Your task to perform on an android device: visit the assistant section in the google photos Image 0: 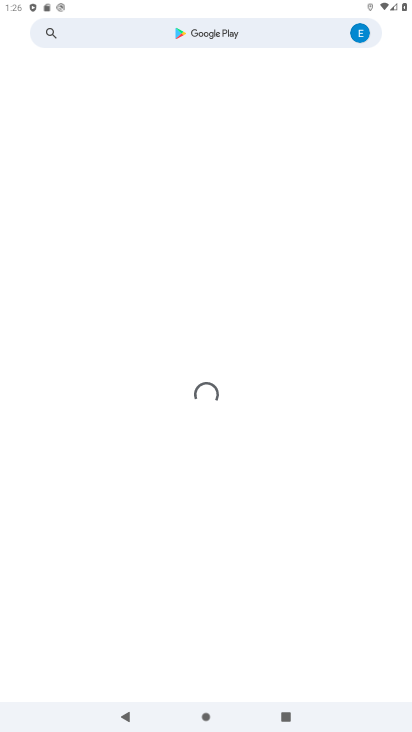
Step 0: press home button
Your task to perform on an android device: visit the assistant section in the google photos Image 1: 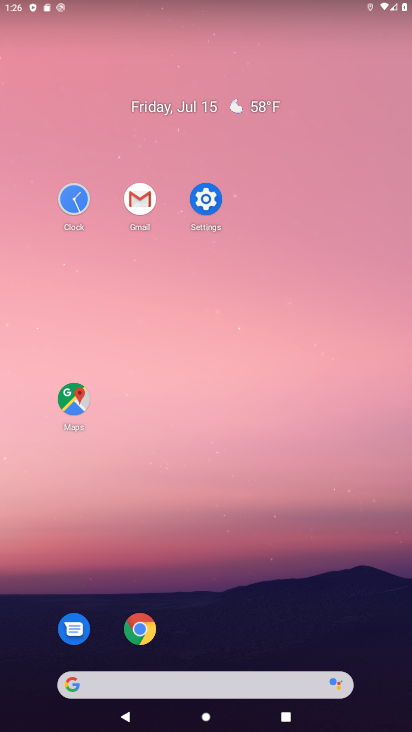
Step 1: drag from (228, 537) to (266, 293)
Your task to perform on an android device: visit the assistant section in the google photos Image 2: 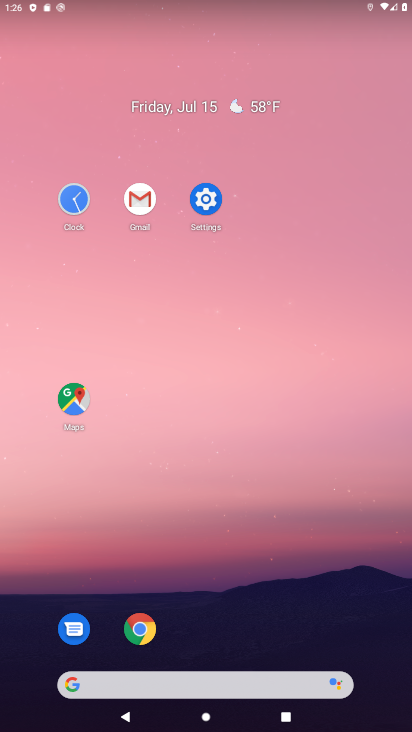
Step 2: drag from (224, 623) to (254, 221)
Your task to perform on an android device: visit the assistant section in the google photos Image 3: 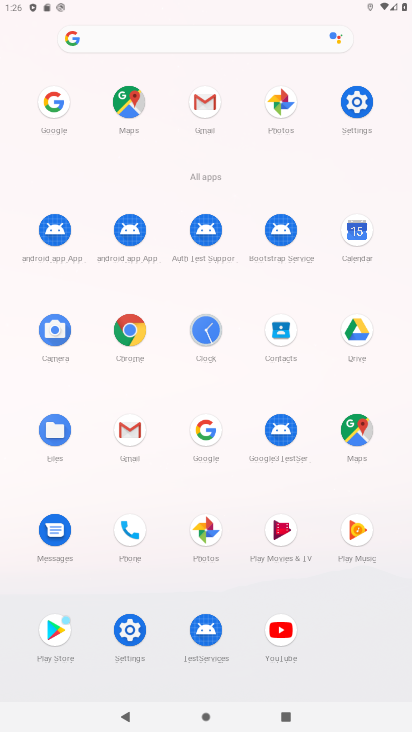
Step 3: drag from (284, 110) to (98, 291)
Your task to perform on an android device: visit the assistant section in the google photos Image 4: 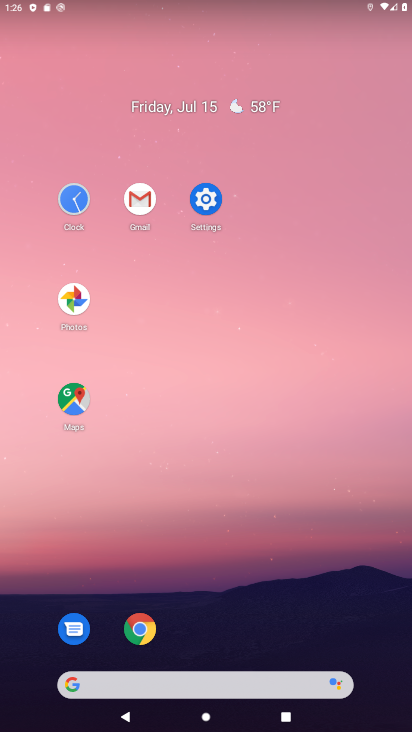
Step 4: click (81, 305)
Your task to perform on an android device: visit the assistant section in the google photos Image 5: 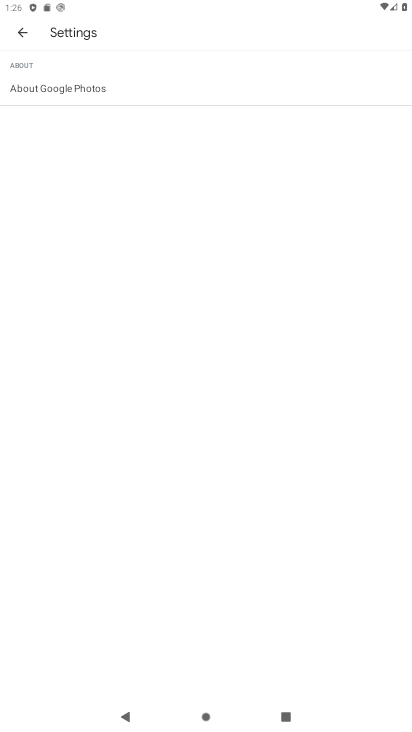
Step 5: click (17, 31)
Your task to perform on an android device: visit the assistant section in the google photos Image 6: 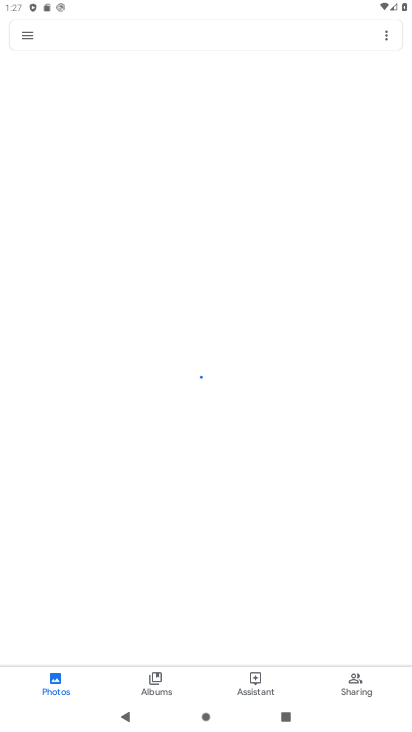
Step 6: click (261, 694)
Your task to perform on an android device: visit the assistant section in the google photos Image 7: 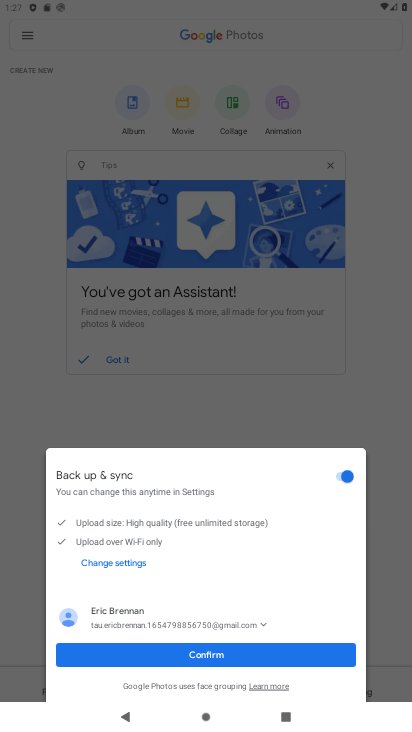
Step 7: click (249, 659)
Your task to perform on an android device: visit the assistant section in the google photos Image 8: 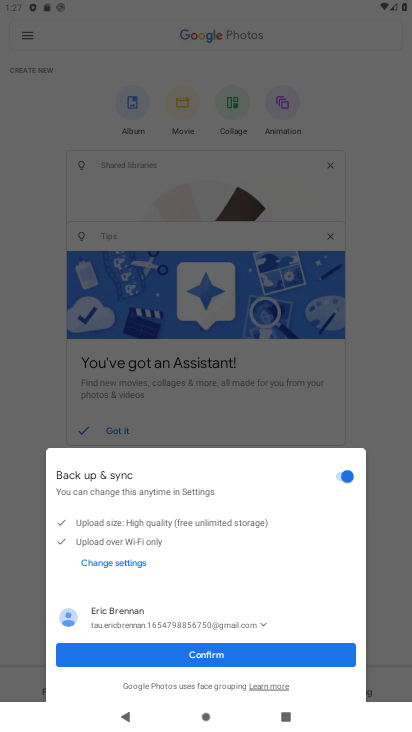
Step 8: click (249, 659)
Your task to perform on an android device: visit the assistant section in the google photos Image 9: 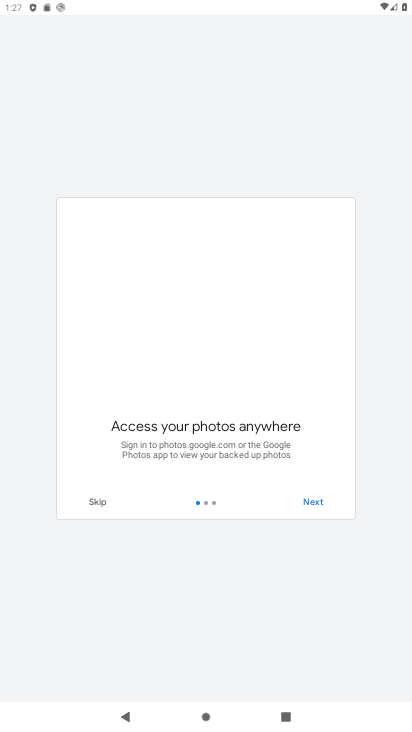
Step 9: click (306, 512)
Your task to perform on an android device: visit the assistant section in the google photos Image 10: 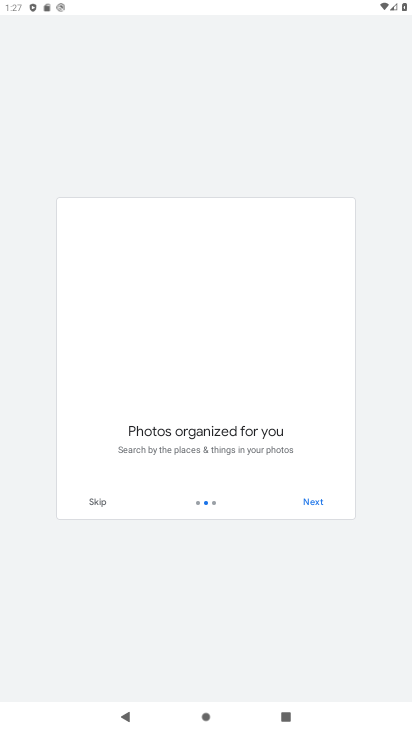
Step 10: click (311, 505)
Your task to perform on an android device: visit the assistant section in the google photos Image 11: 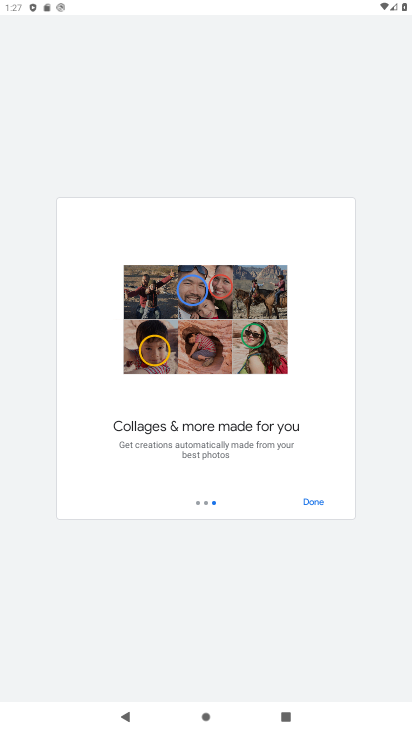
Step 11: click (311, 505)
Your task to perform on an android device: visit the assistant section in the google photos Image 12: 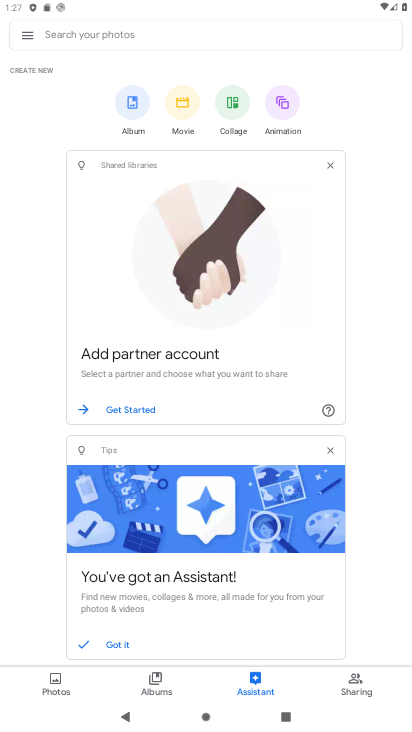
Step 12: task complete